Your task to perform on an android device: Open the phone app and click the voicemail tab. Image 0: 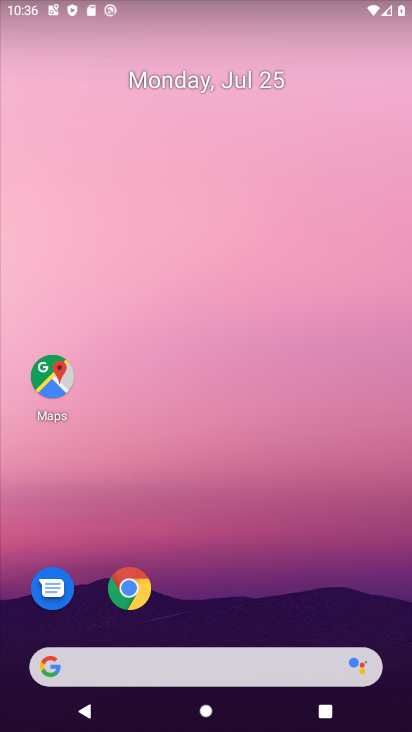
Step 0: drag from (302, 611) to (317, 238)
Your task to perform on an android device: Open the phone app and click the voicemail tab. Image 1: 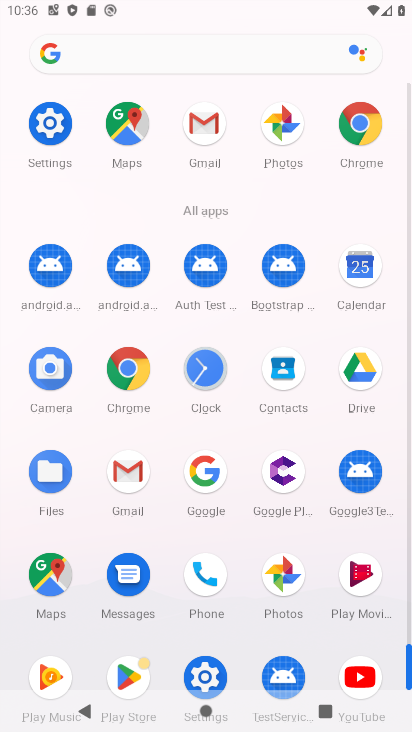
Step 1: click (201, 564)
Your task to perform on an android device: Open the phone app and click the voicemail tab. Image 2: 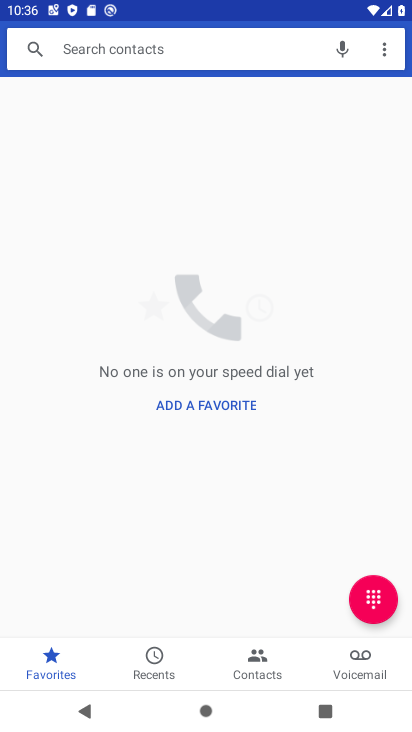
Step 2: click (357, 651)
Your task to perform on an android device: Open the phone app and click the voicemail tab. Image 3: 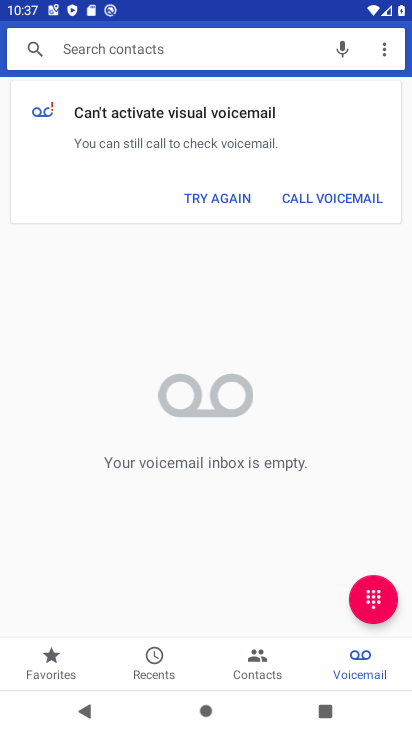
Step 3: task complete